Your task to perform on an android device: Open the web browser Image 0: 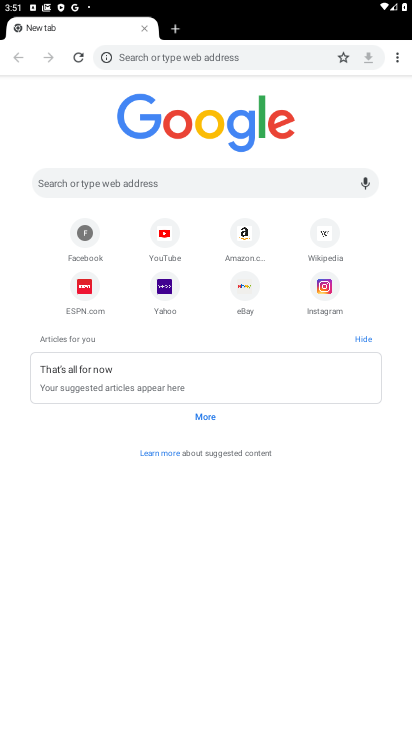
Step 0: press home button
Your task to perform on an android device: Open the web browser Image 1: 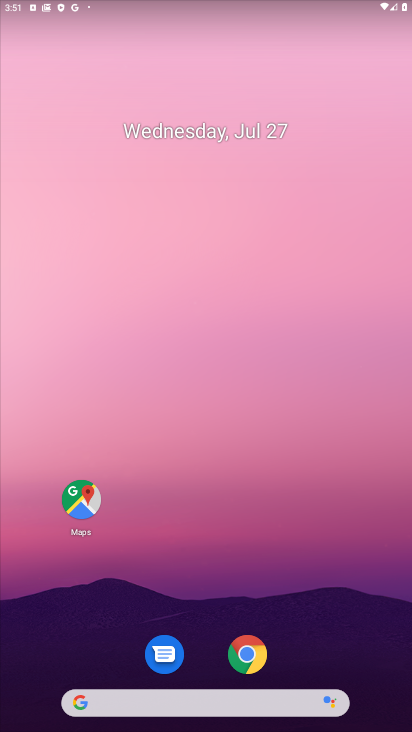
Step 1: click (254, 656)
Your task to perform on an android device: Open the web browser Image 2: 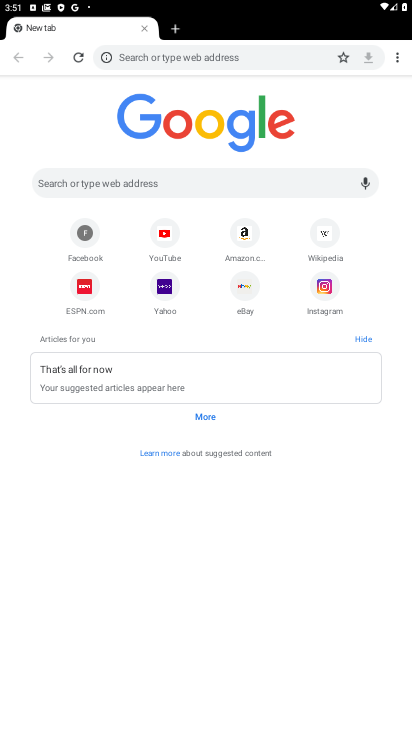
Step 2: task complete